Your task to perform on an android device: Go to Android settings Image 0: 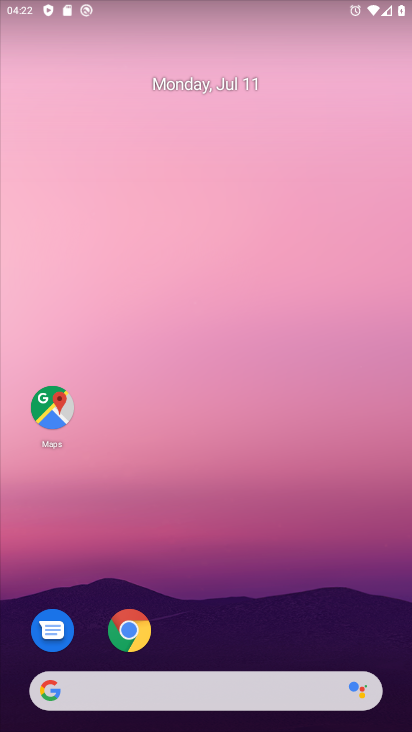
Step 0: drag from (227, 661) to (244, 8)
Your task to perform on an android device: Go to Android settings Image 1: 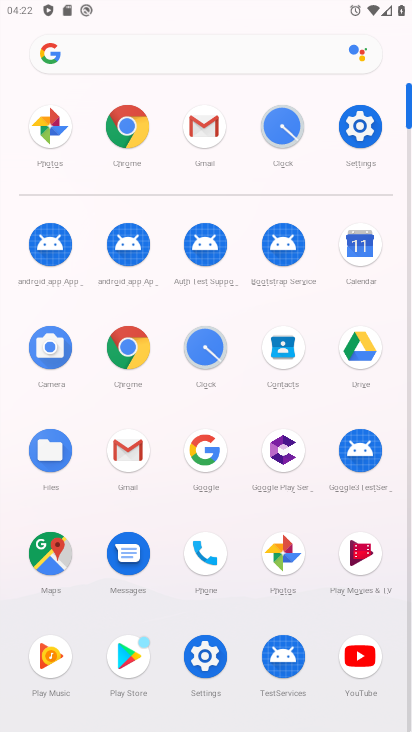
Step 1: click (358, 124)
Your task to perform on an android device: Go to Android settings Image 2: 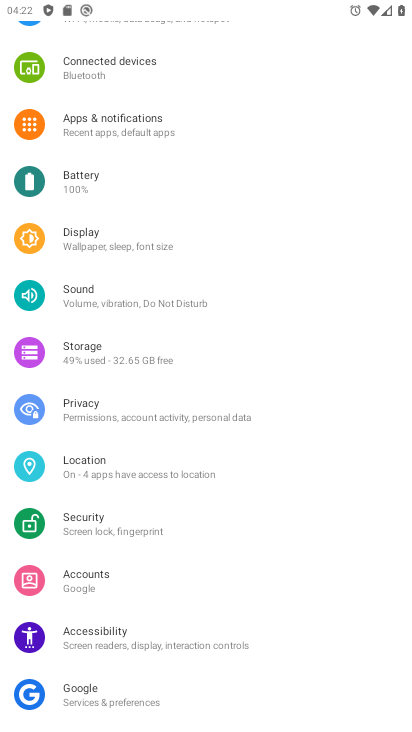
Step 2: drag from (165, 673) to (204, 53)
Your task to perform on an android device: Go to Android settings Image 3: 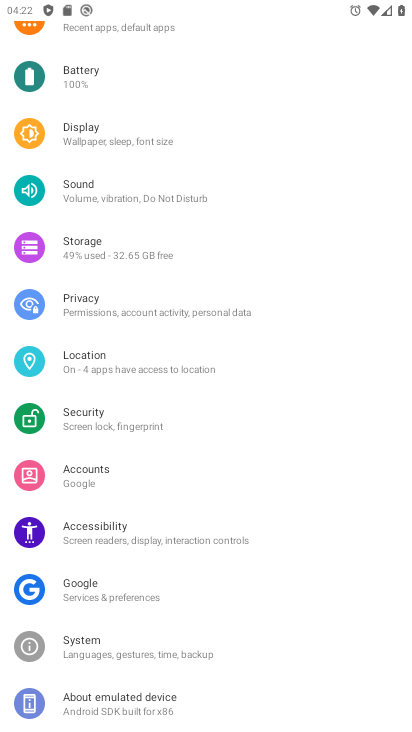
Step 3: click (189, 704)
Your task to perform on an android device: Go to Android settings Image 4: 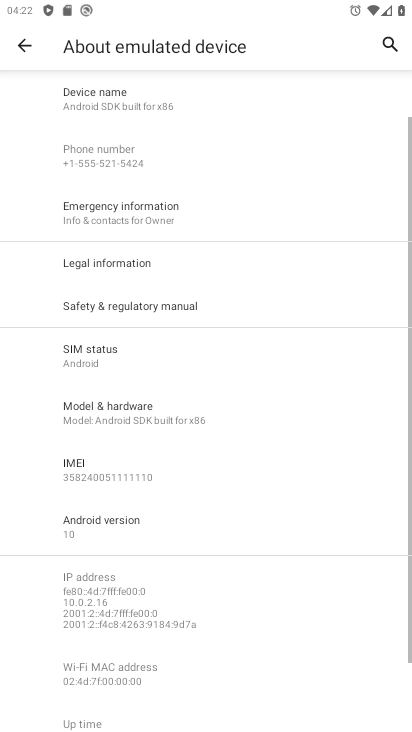
Step 4: click (108, 532)
Your task to perform on an android device: Go to Android settings Image 5: 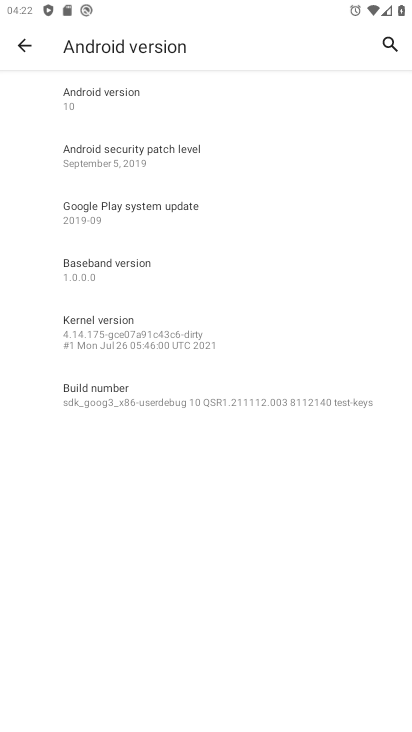
Step 5: task complete